Your task to perform on an android device: Go to Maps Image 0: 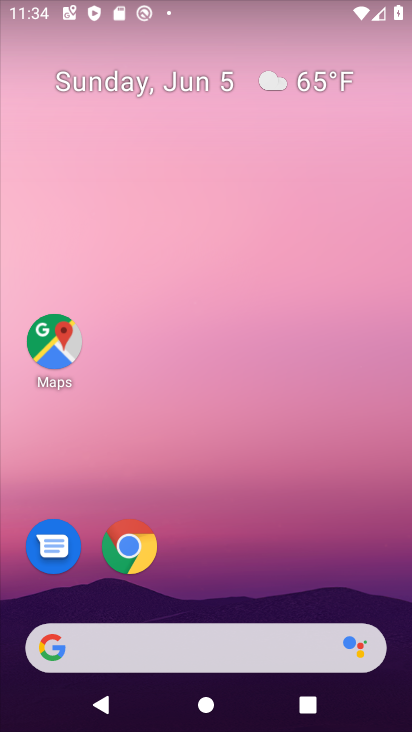
Step 0: click (46, 341)
Your task to perform on an android device: Go to Maps Image 1: 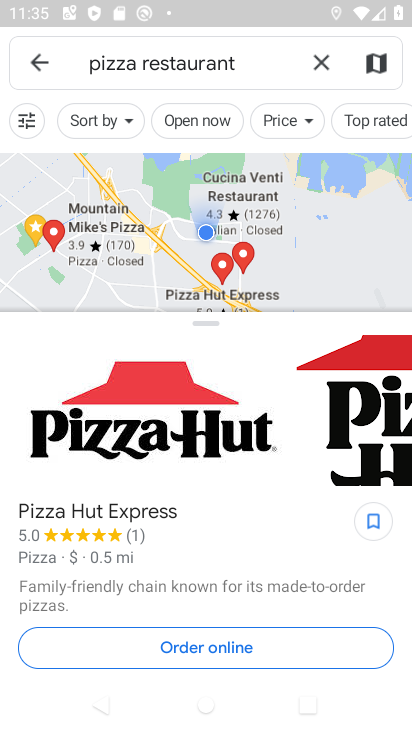
Step 1: click (315, 56)
Your task to perform on an android device: Go to Maps Image 2: 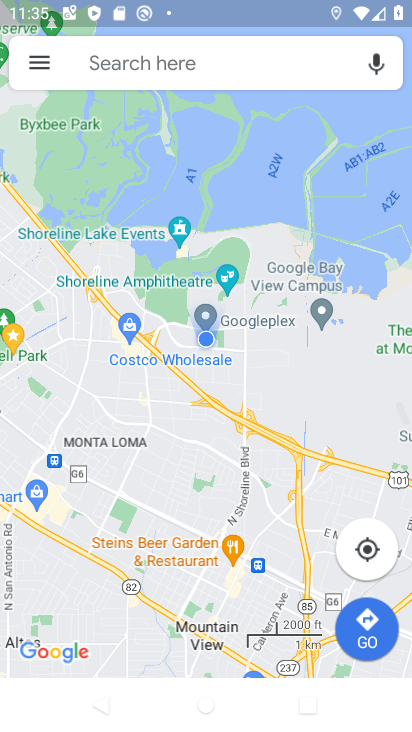
Step 2: task complete